Your task to perform on an android device: Search for Italian restaurants on Maps Image 0: 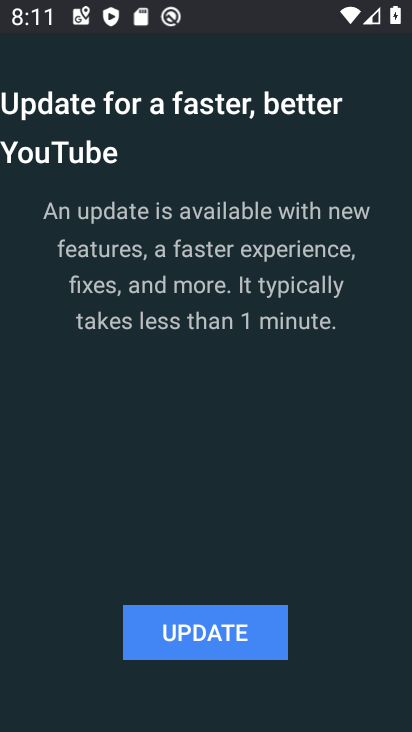
Step 0: press home button
Your task to perform on an android device: Search for Italian restaurants on Maps Image 1: 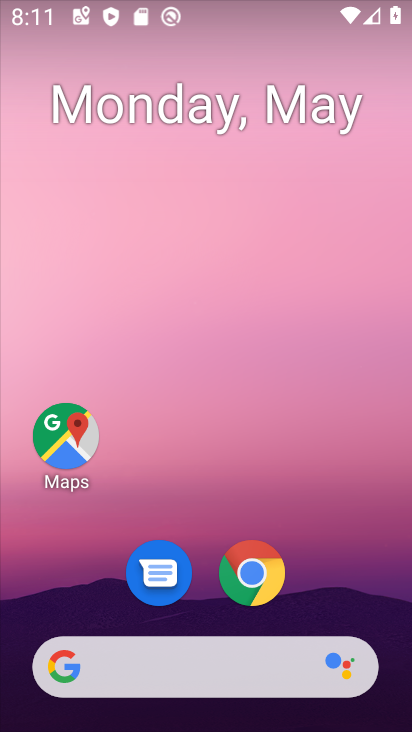
Step 1: drag from (222, 670) to (233, 159)
Your task to perform on an android device: Search for Italian restaurants on Maps Image 2: 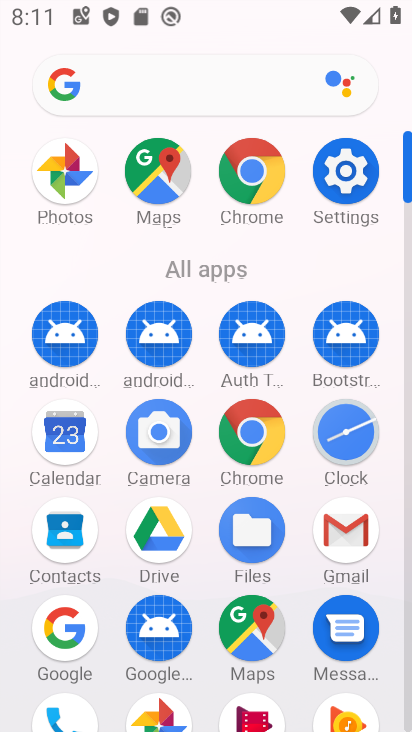
Step 2: click (159, 192)
Your task to perform on an android device: Search for Italian restaurants on Maps Image 3: 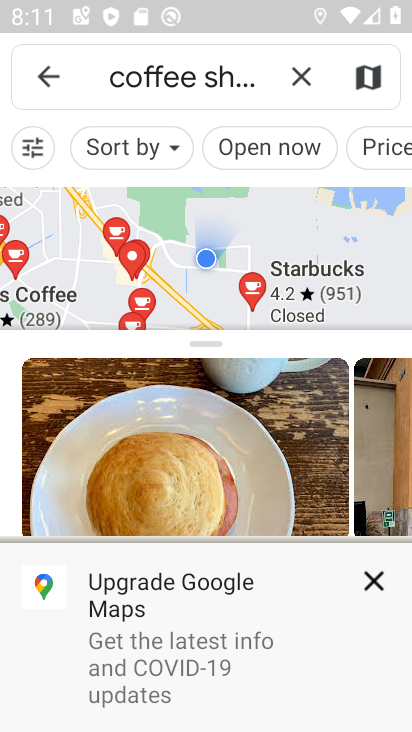
Step 3: click (299, 78)
Your task to perform on an android device: Search for Italian restaurants on Maps Image 4: 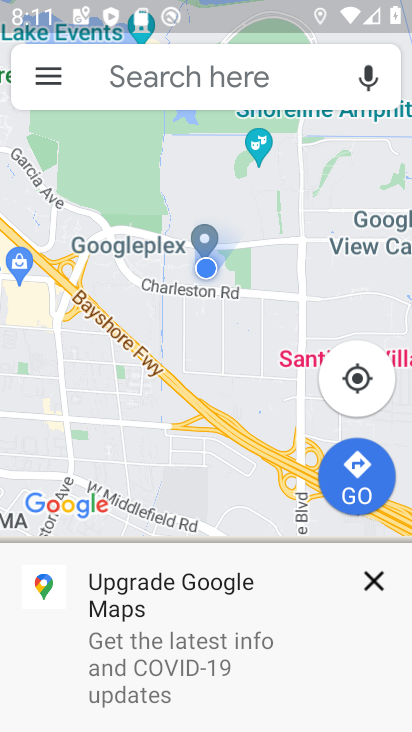
Step 4: click (152, 70)
Your task to perform on an android device: Search for Italian restaurants on Maps Image 5: 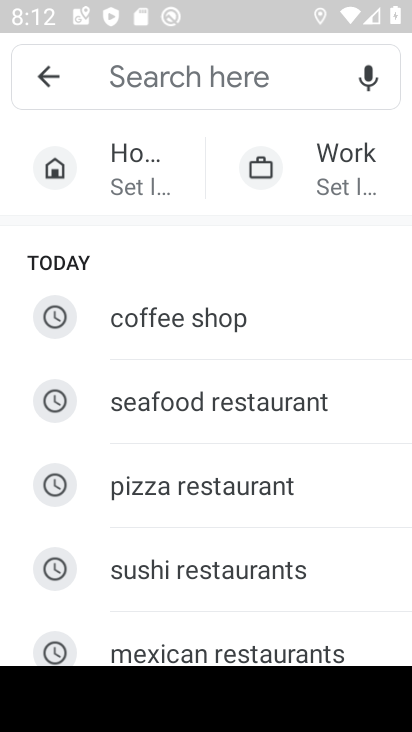
Step 5: drag from (194, 548) to (185, 236)
Your task to perform on an android device: Search for Italian restaurants on Maps Image 6: 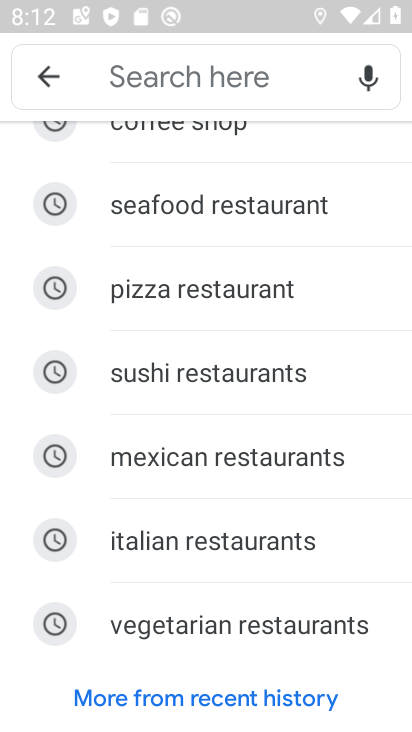
Step 6: click (194, 541)
Your task to perform on an android device: Search for Italian restaurants on Maps Image 7: 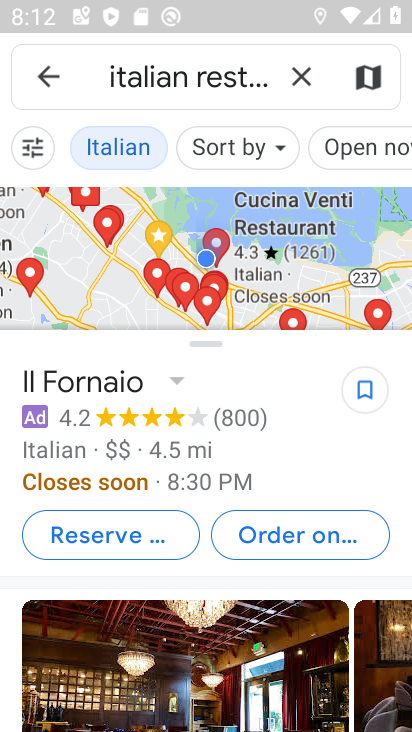
Step 7: task complete